Your task to perform on an android device: Open settings Image 0: 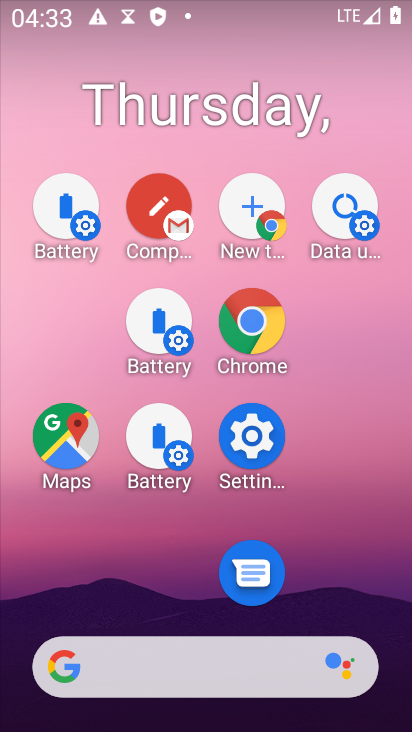
Step 0: drag from (277, 704) to (169, 113)
Your task to perform on an android device: Open settings Image 1: 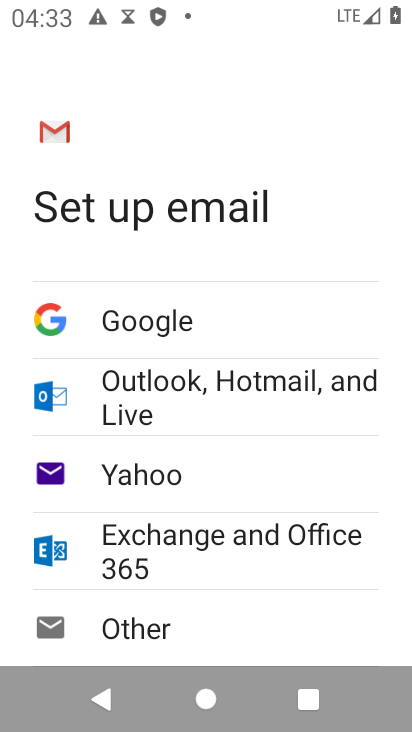
Step 1: drag from (230, 577) to (161, 222)
Your task to perform on an android device: Open settings Image 2: 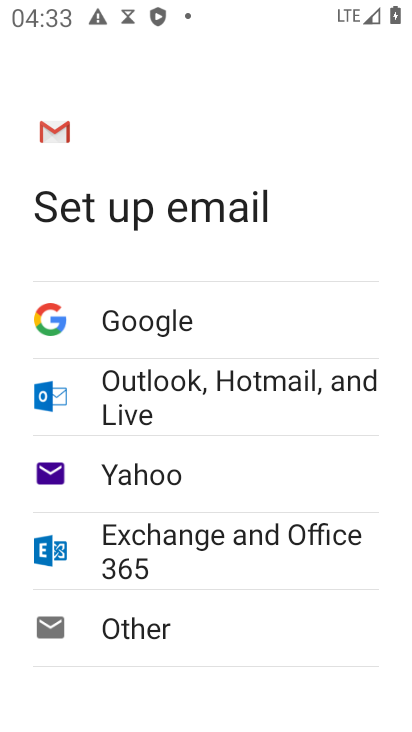
Step 2: press back button
Your task to perform on an android device: Open settings Image 3: 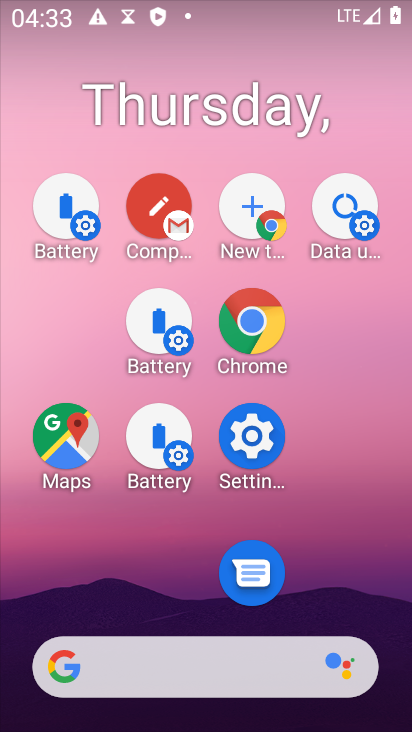
Step 3: drag from (135, 703) to (186, 110)
Your task to perform on an android device: Open settings Image 4: 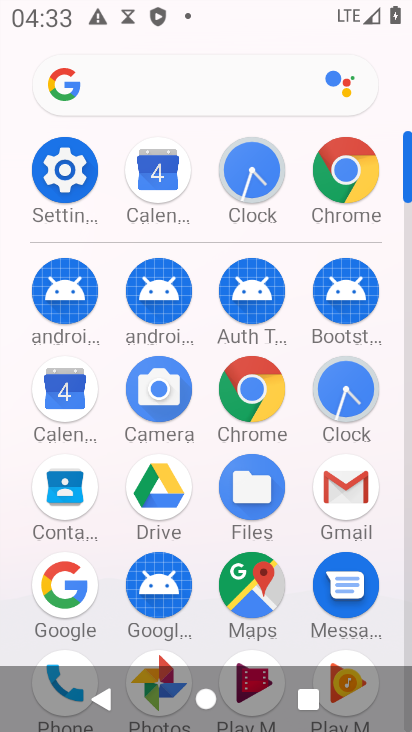
Step 4: click (76, 185)
Your task to perform on an android device: Open settings Image 5: 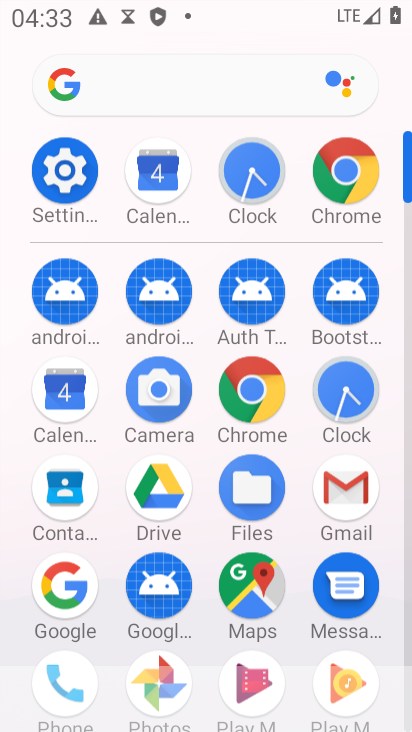
Step 5: click (62, 174)
Your task to perform on an android device: Open settings Image 6: 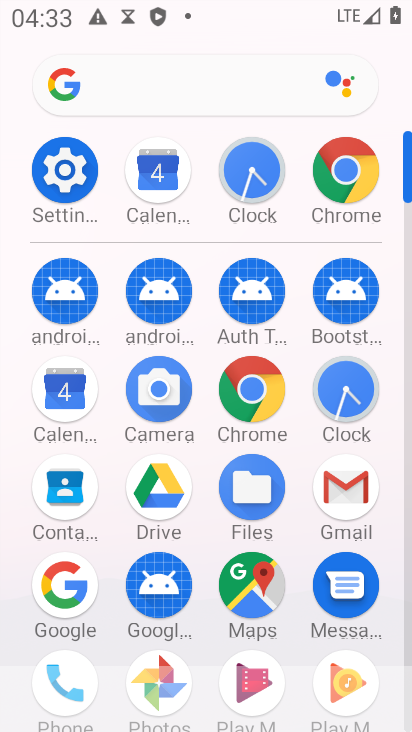
Step 6: click (65, 177)
Your task to perform on an android device: Open settings Image 7: 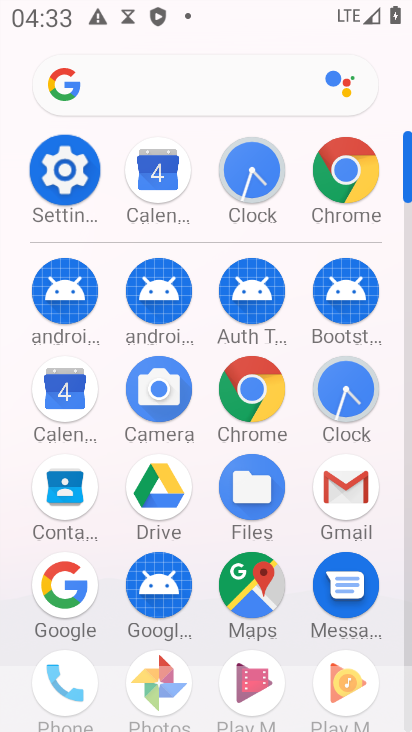
Step 7: click (66, 176)
Your task to perform on an android device: Open settings Image 8: 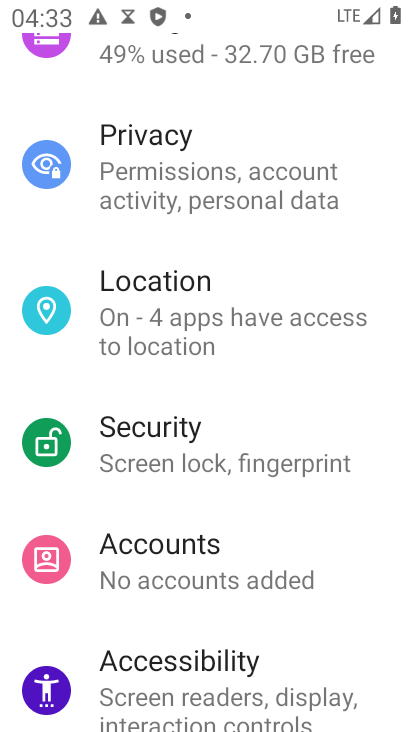
Step 8: task complete